Your task to perform on an android device: add a label to a message in the gmail app Image 0: 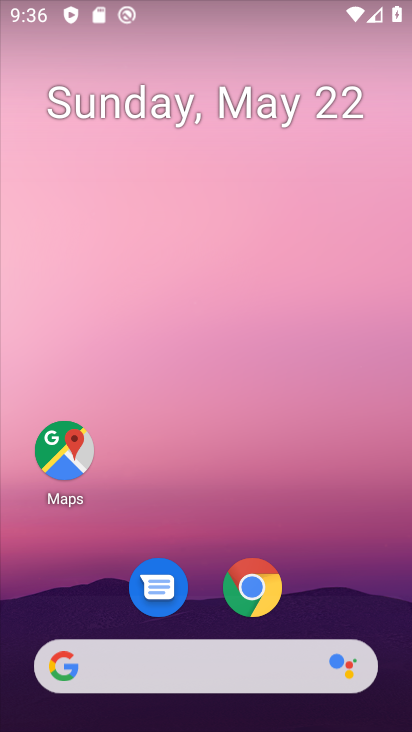
Step 0: drag from (211, 614) to (279, 76)
Your task to perform on an android device: add a label to a message in the gmail app Image 1: 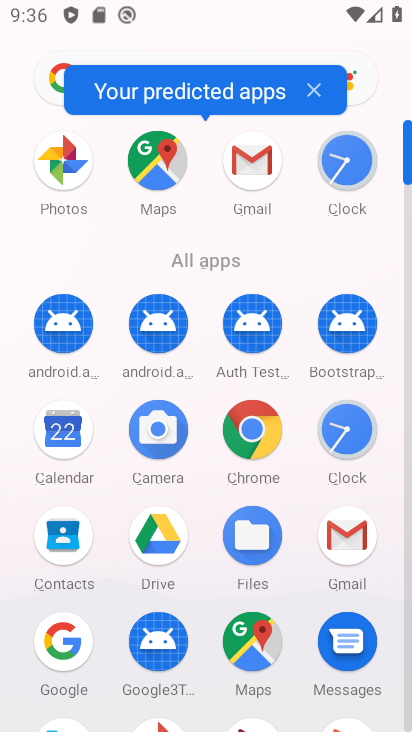
Step 1: click (250, 156)
Your task to perform on an android device: add a label to a message in the gmail app Image 2: 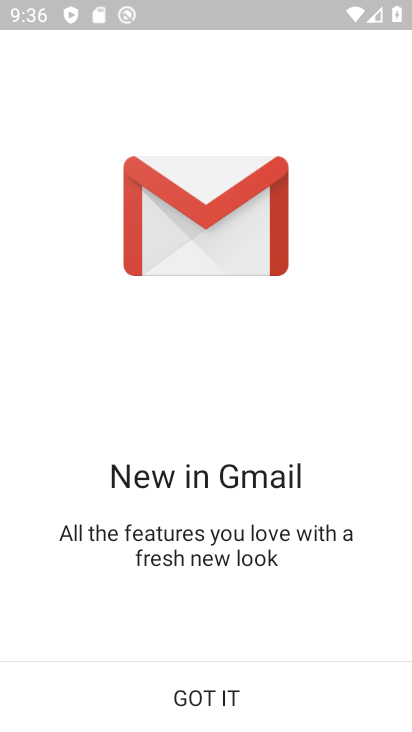
Step 2: click (215, 699)
Your task to perform on an android device: add a label to a message in the gmail app Image 3: 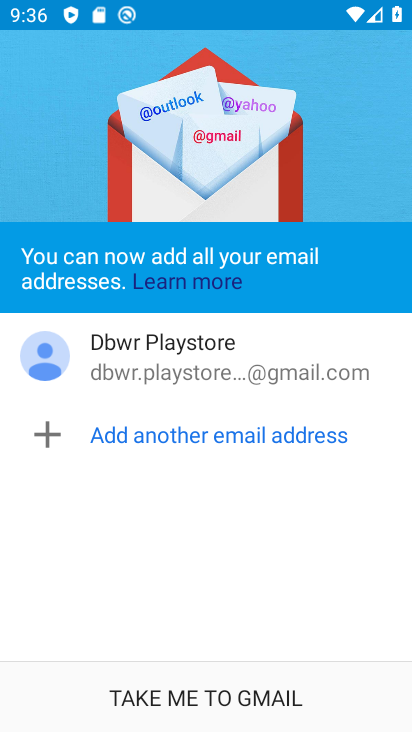
Step 3: click (194, 693)
Your task to perform on an android device: add a label to a message in the gmail app Image 4: 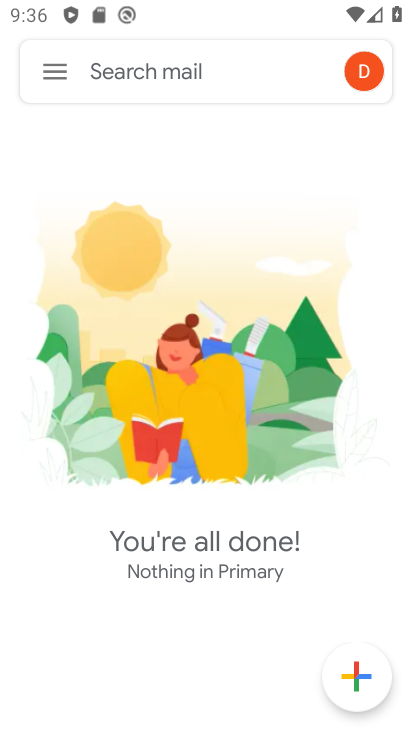
Step 4: task complete